Your task to perform on an android device: toggle wifi Image 0: 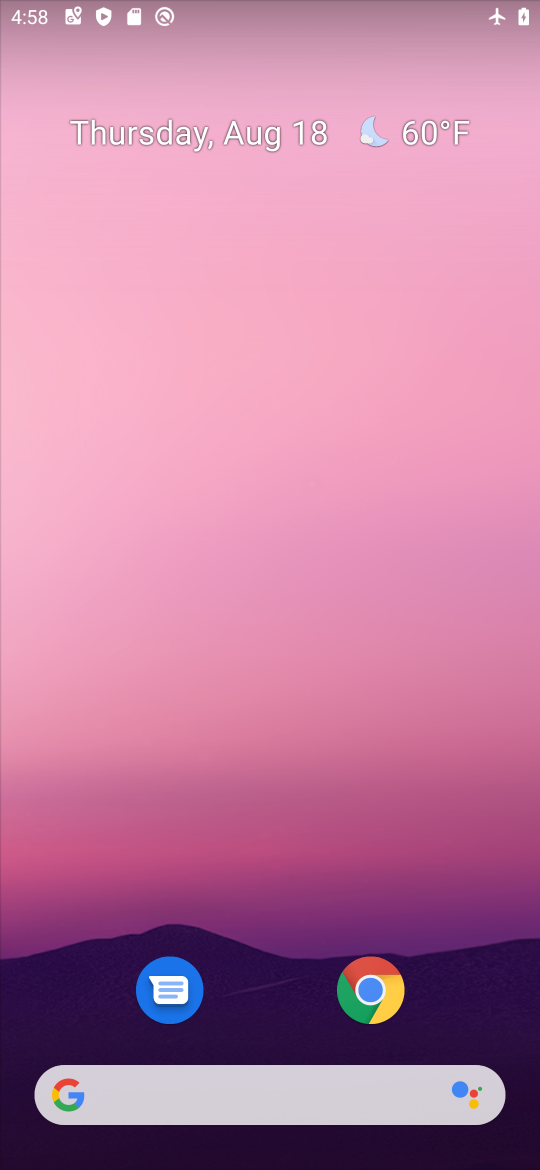
Step 0: drag from (278, 886) to (313, 166)
Your task to perform on an android device: toggle wifi Image 1: 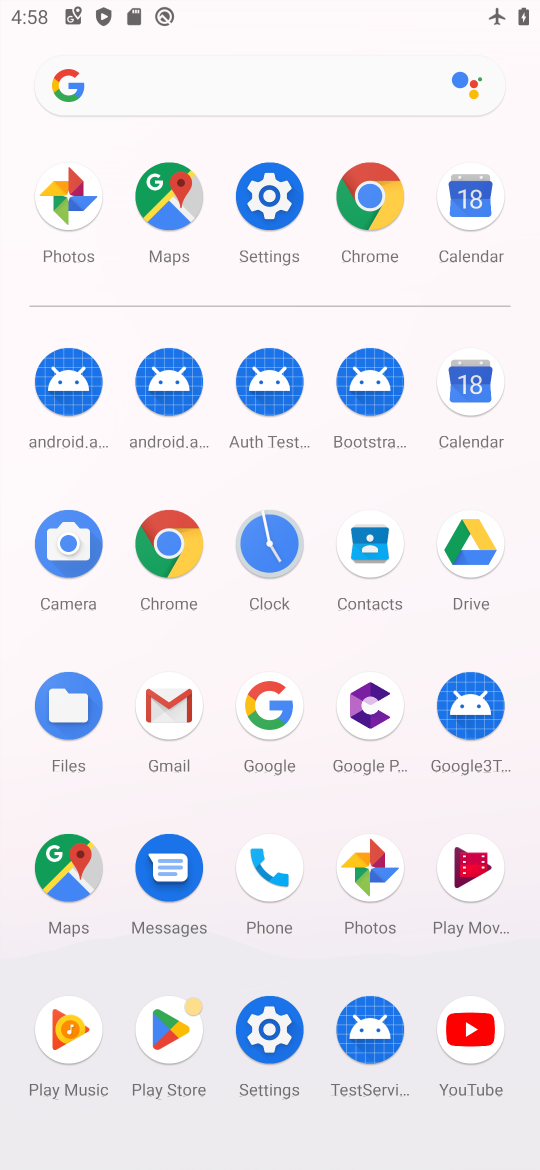
Step 1: click (271, 1035)
Your task to perform on an android device: toggle wifi Image 2: 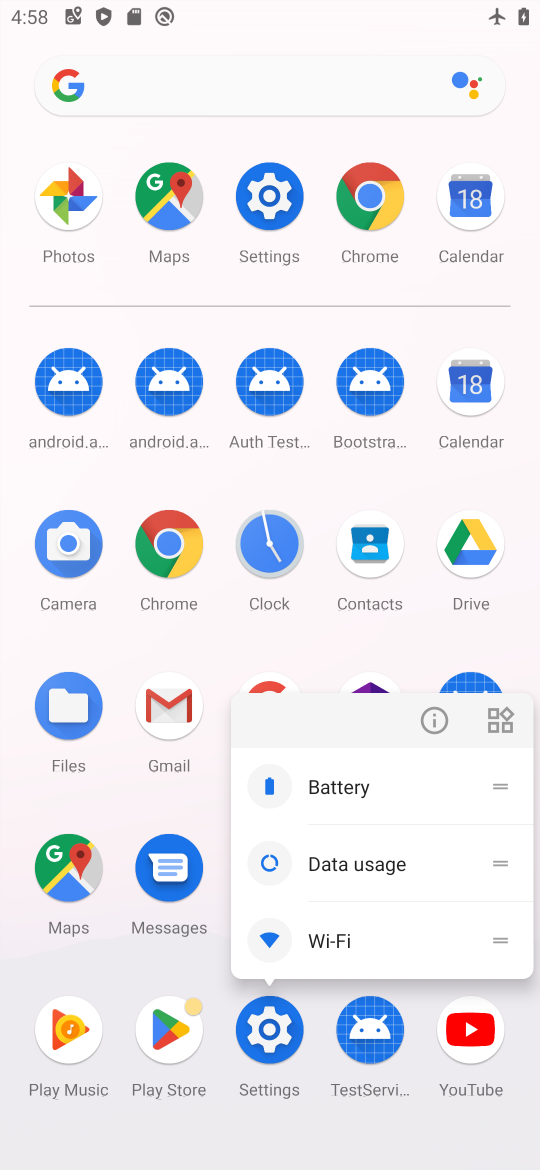
Step 2: click (271, 1030)
Your task to perform on an android device: toggle wifi Image 3: 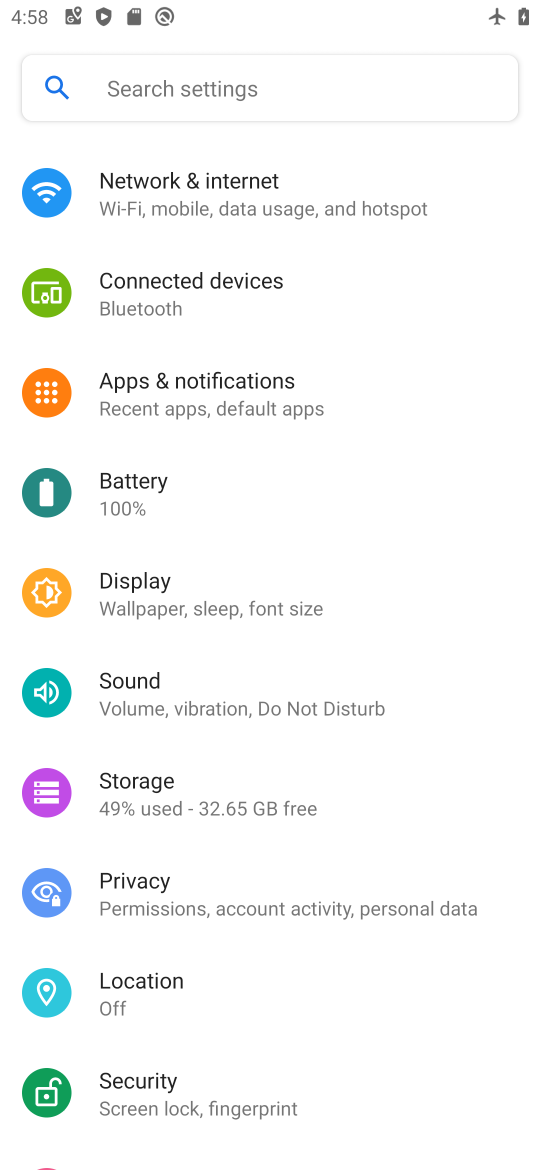
Step 3: click (220, 195)
Your task to perform on an android device: toggle wifi Image 4: 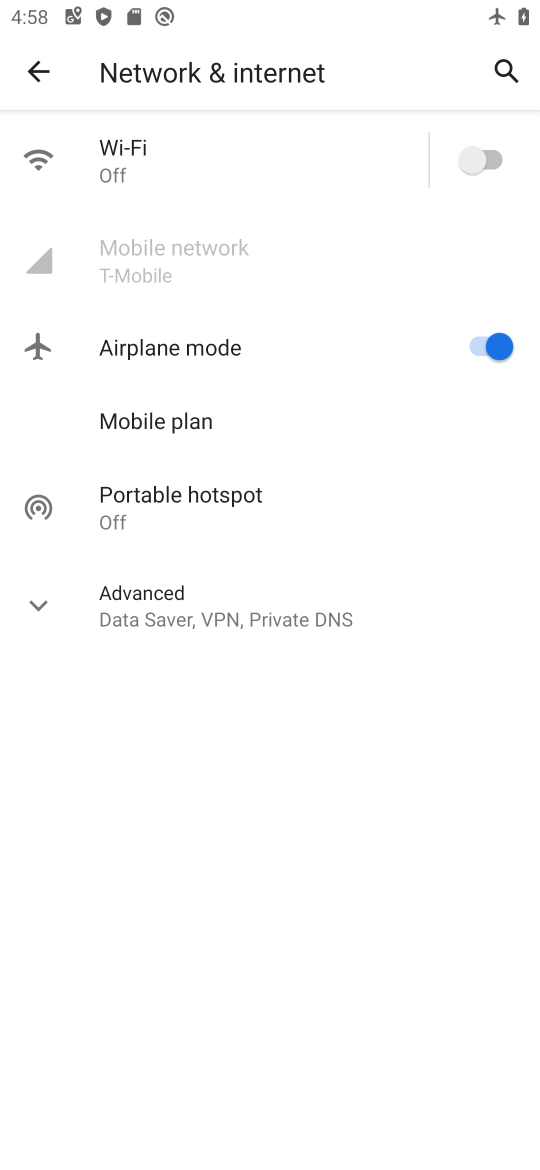
Step 4: click (328, 190)
Your task to perform on an android device: toggle wifi Image 5: 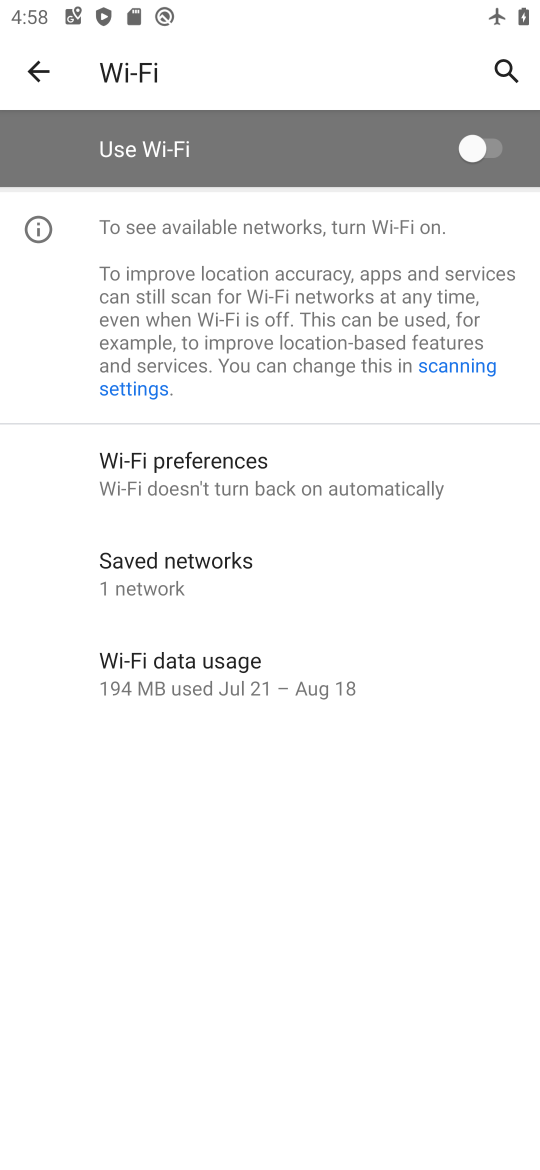
Step 5: click (493, 155)
Your task to perform on an android device: toggle wifi Image 6: 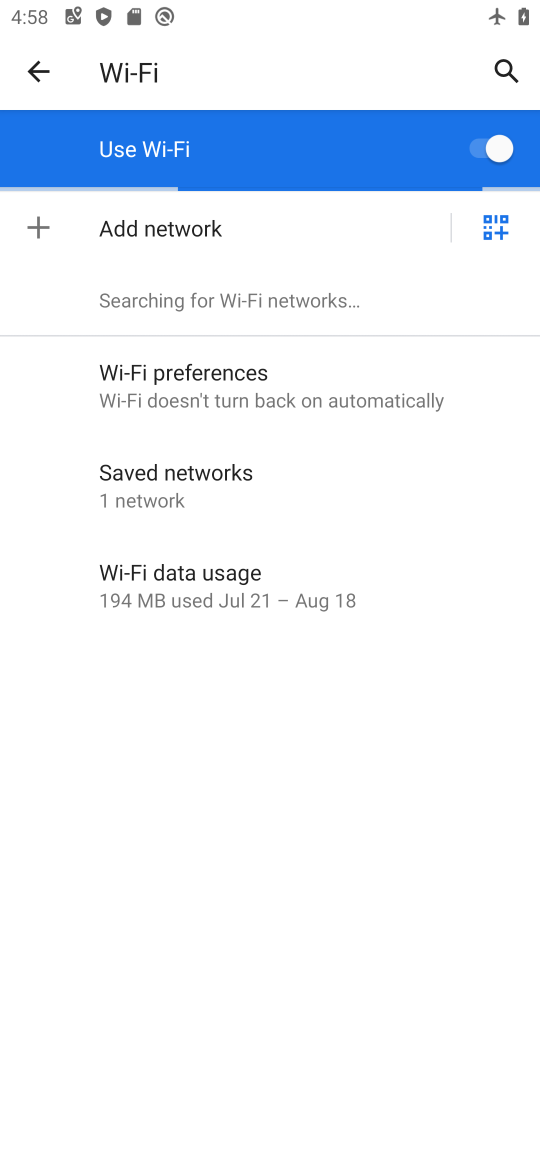
Step 6: task complete